Your task to perform on an android device: change the upload size in google photos Image 0: 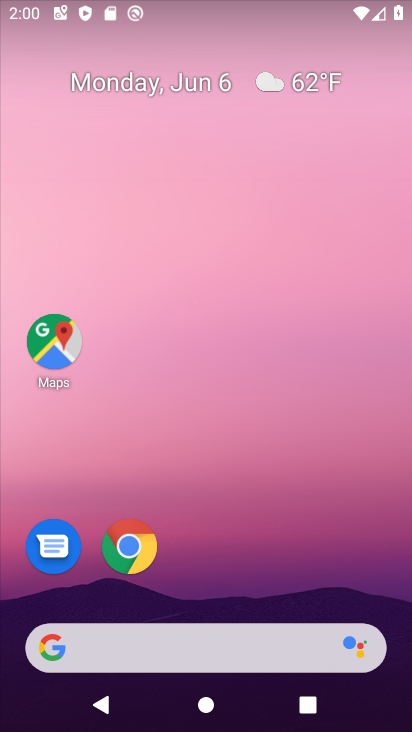
Step 0: drag from (224, 459) to (260, 142)
Your task to perform on an android device: change the upload size in google photos Image 1: 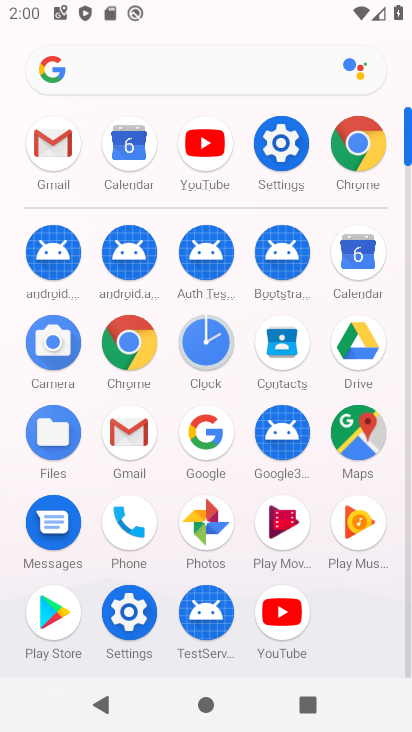
Step 1: click (205, 525)
Your task to perform on an android device: change the upload size in google photos Image 2: 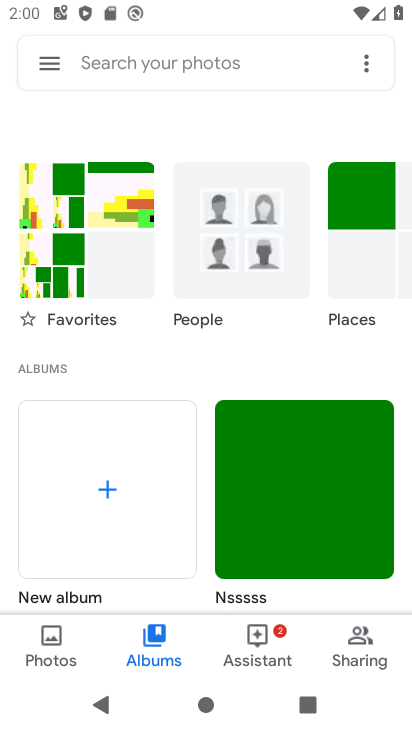
Step 2: click (45, 60)
Your task to perform on an android device: change the upload size in google photos Image 3: 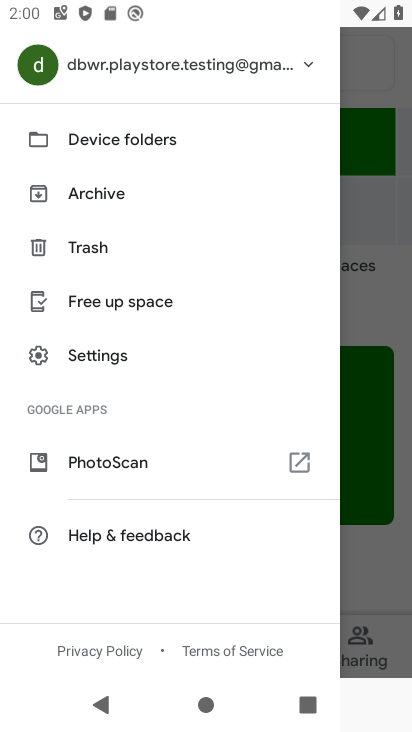
Step 3: click (113, 360)
Your task to perform on an android device: change the upload size in google photos Image 4: 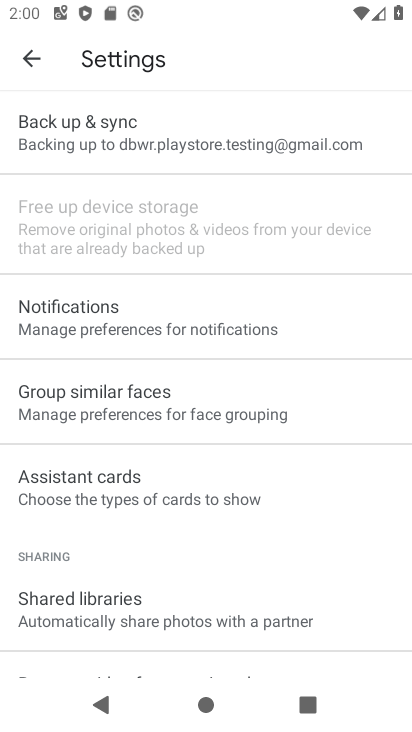
Step 4: drag from (153, 571) to (166, 537)
Your task to perform on an android device: change the upload size in google photos Image 5: 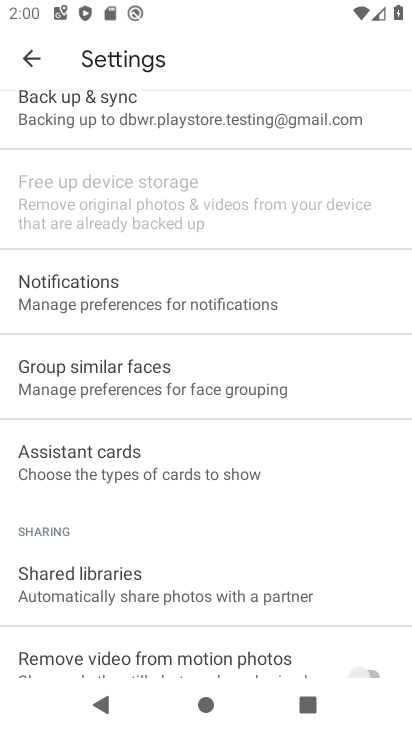
Step 5: click (169, 121)
Your task to perform on an android device: change the upload size in google photos Image 6: 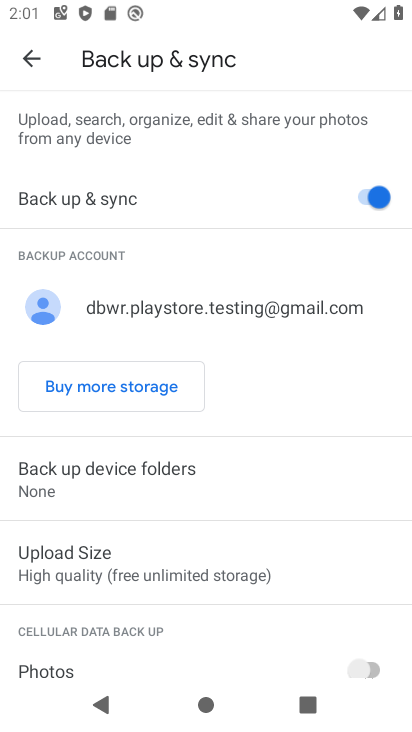
Step 6: click (223, 564)
Your task to perform on an android device: change the upload size in google photos Image 7: 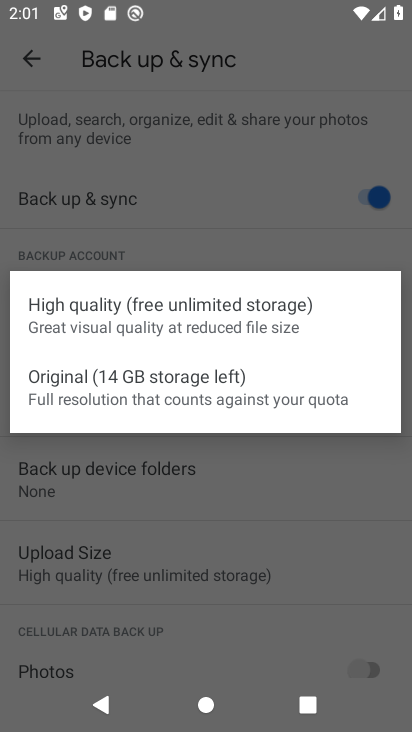
Step 7: click (193, 377)
Your task to perform on an android device: change the upload size in google photos Image 8: 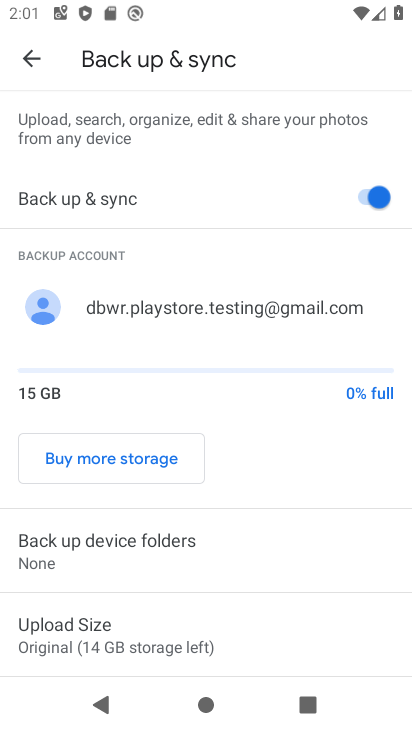
Step 8: task complete